Your task to perform on an android device: Open Amazon Image 0: 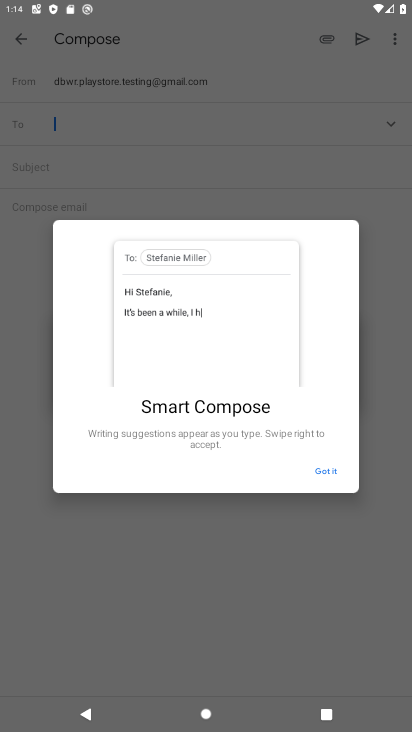
Step 0: press home button
Your task to perform on an android device: Open Amazon Image 1: 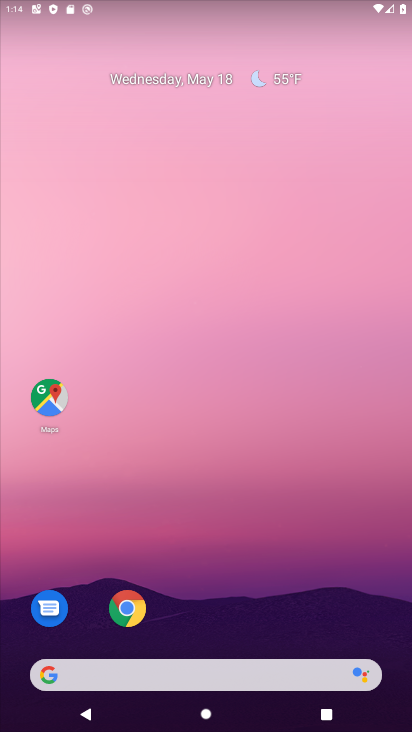
Step 1: click (129, 602)
Your task to perform on an android device: Open Amazon Image 2: 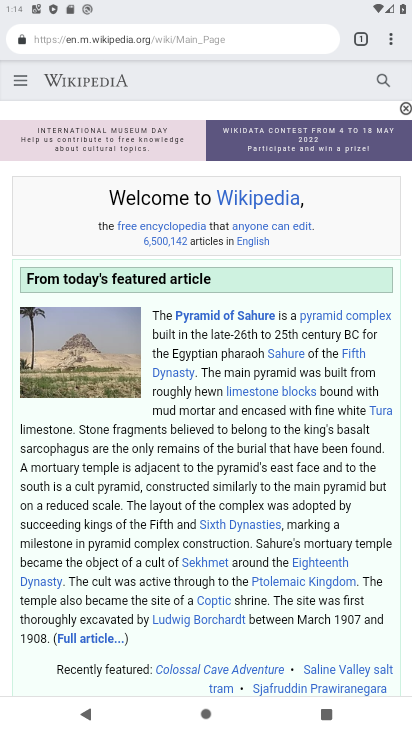
Step 2: click (204, 35)
Your task to perform on an android device: Open Amazon Image 3: 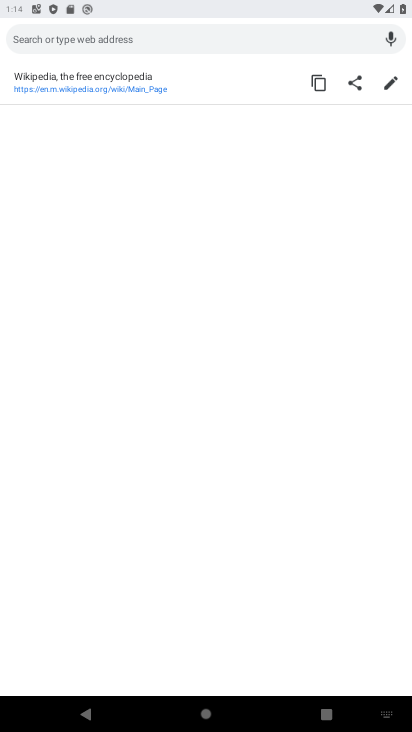
Step 3: type "amazon"
Your task to perform on an android device: Open Amazon Image 4: 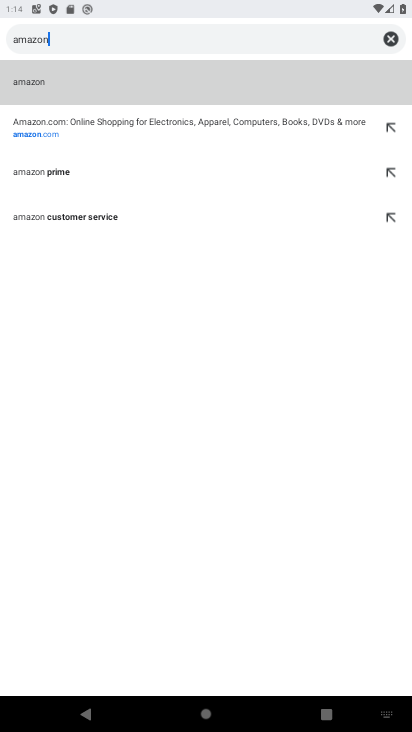
Step 4: click (39, 130)
Your task to perform on an android device: Open Amazon Image 5: 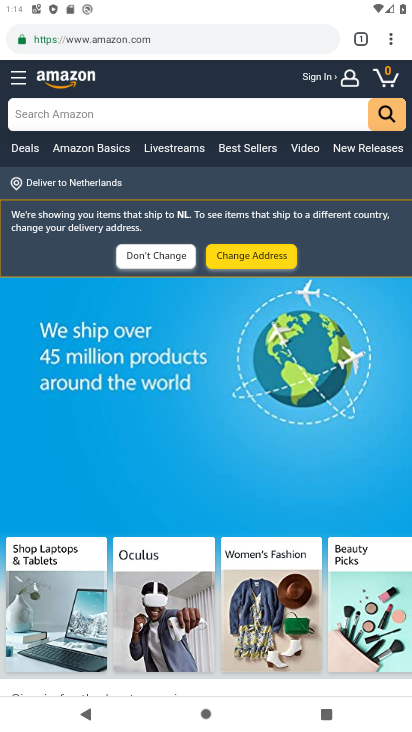
Step 5: task complete